Your task to perform on an android device: toggle translation in the chrome app Image 0: 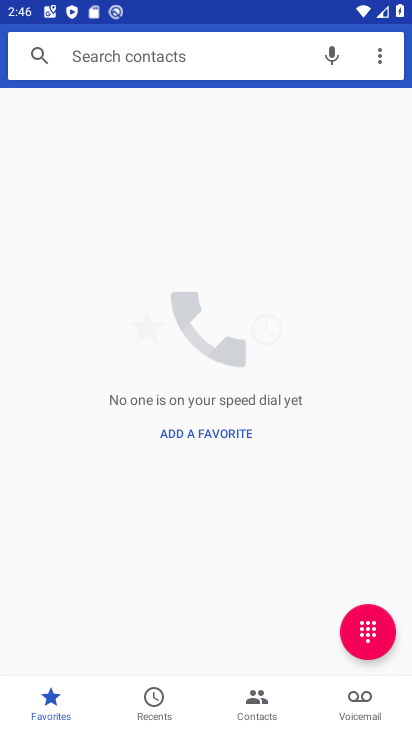
Step 0: press home button
Your task to perform on an android device: toggle translation in the chrome app Image 1: 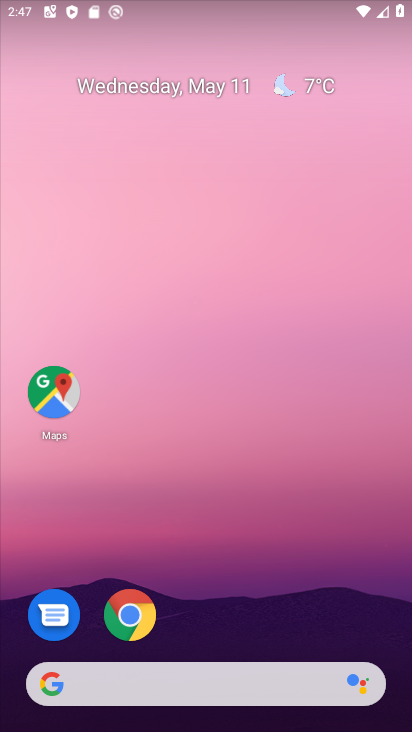
Step 1: click (126, 609)
Your task to perform on an android device: toggle translation in the chrome app Image 2: 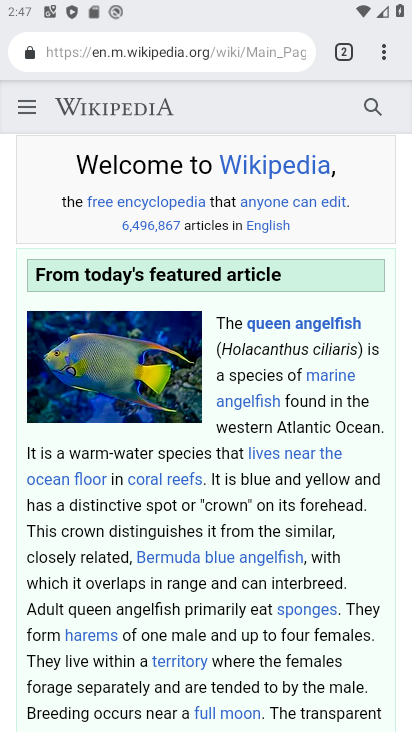
Step 2: click (385, 54)
Your task to perform on an android device: toggle translation in the chrome app Image 3: 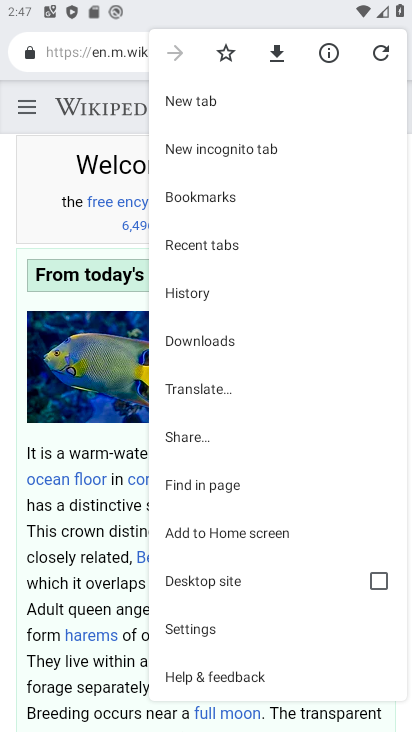
Step 3: click (217, 631)
Your task to perform on an android device: toggle translation in the chrome app Image 4: 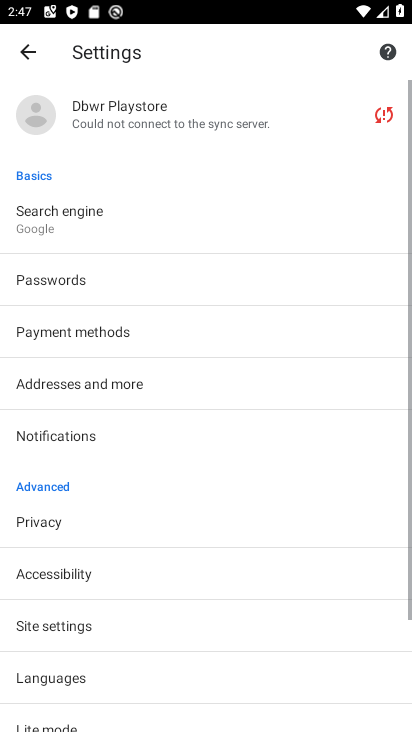
Step 4: drag from (218, 618) to (292, 193)
Your task to perform on an android device: toggle translation in the chrome app Image 5: 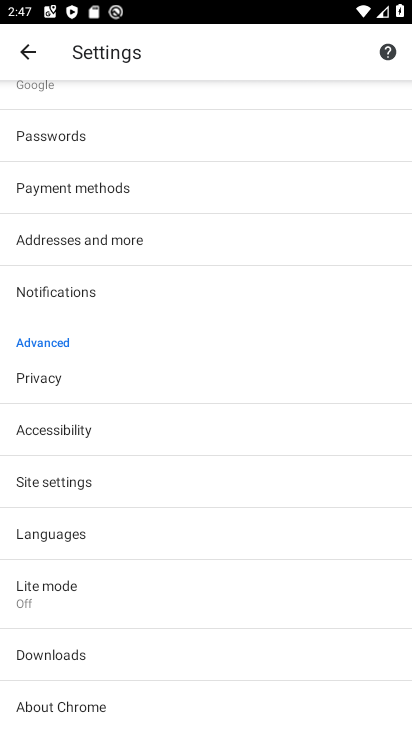
Step 5: click (85, 537)
Your task to perform on an android device: toggle translation in the chrome app Image 6: 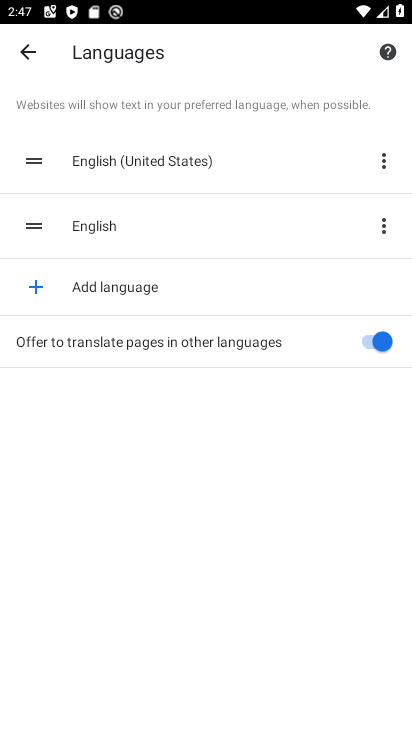
Step 6: click (354, 341)
Your task to perform on an android device: toggle translation in the chrome app Image 7: 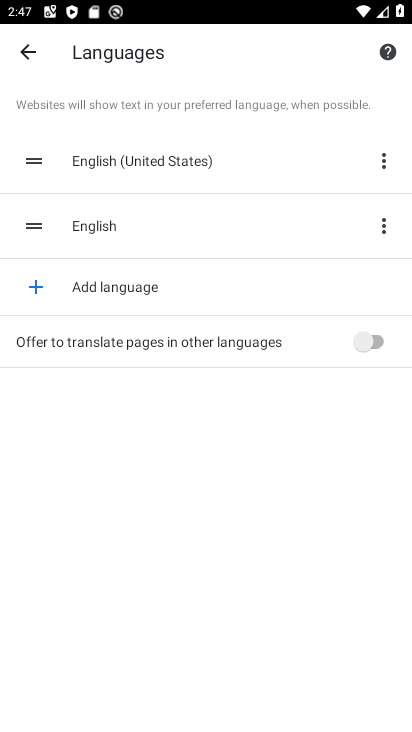
Step 7: task complete